Your task to perform on an android device: Open eBay Image 0: 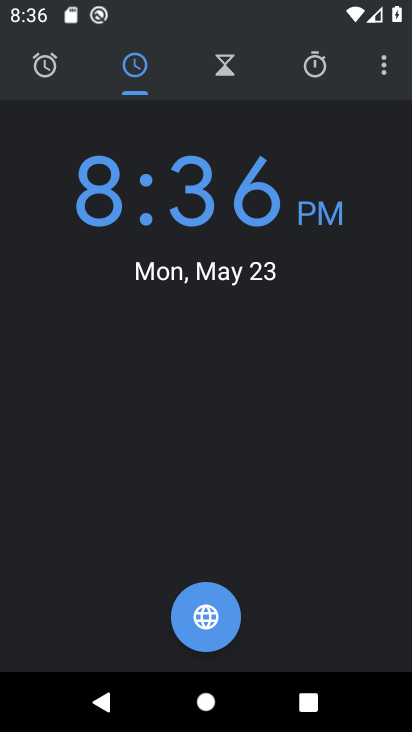
Step 0: press back button
Your task to perform on an android device: Open eBay Image 1: 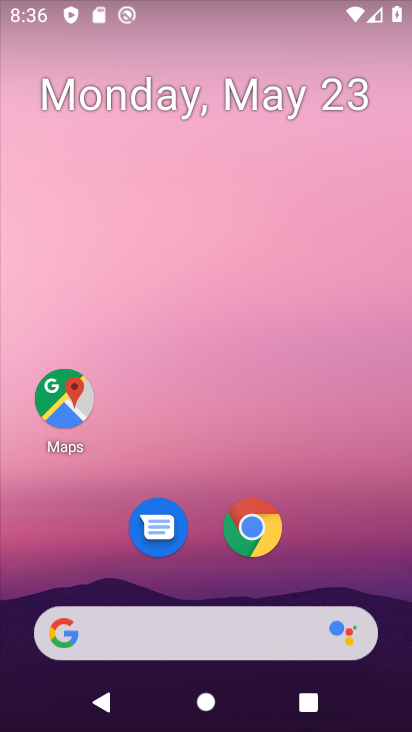
Step 1: click (248, 522)
Your task to perform on an android device: Open eBay Image 2: 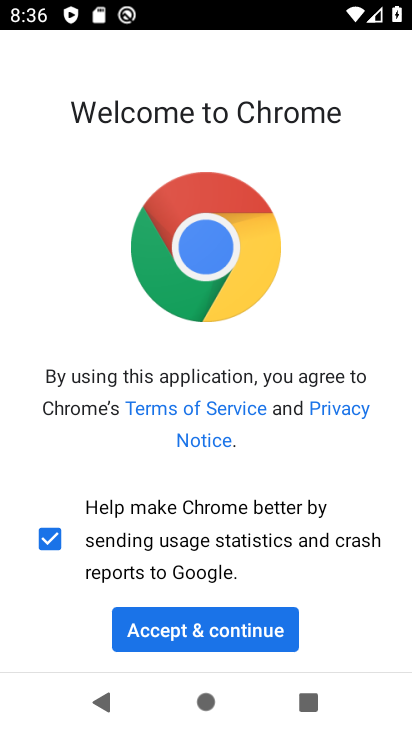
Step 2: click (207, 629)
Your task to perform on an android device: Open eBay Image 3: 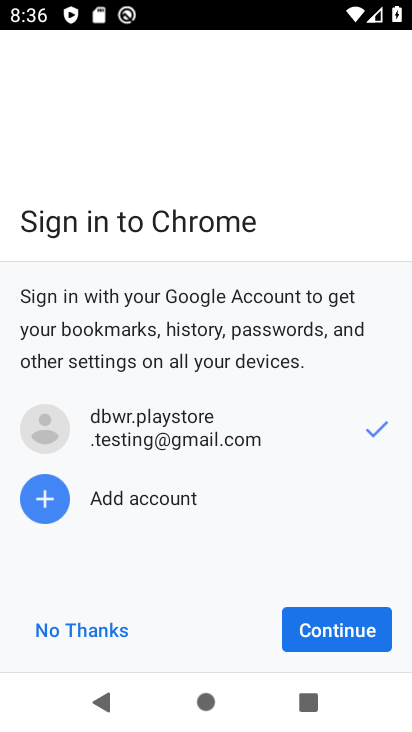
Step 3: click (369, 629)
Your task to perform on an android device: Open eBay Image 4: 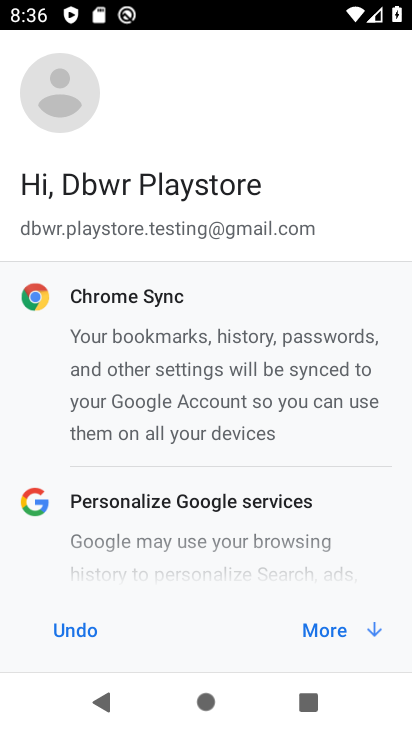
Step 4: click (305, 625)
Your task to perform on an android device: Open eBay Image 5: 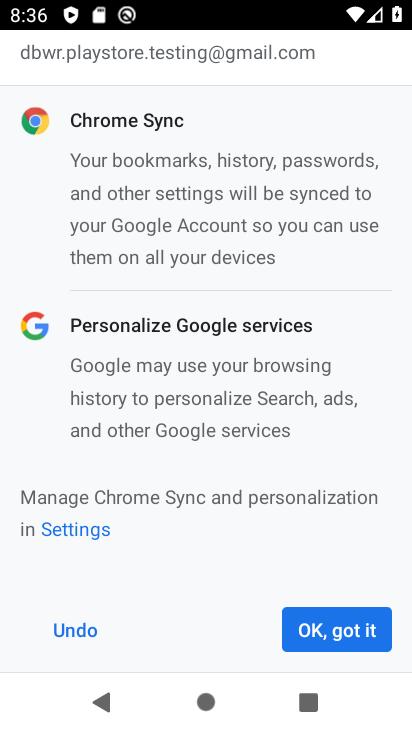
Step 5: click (342, 631)
Your task to perform on an android device: Open eBay Image 6: 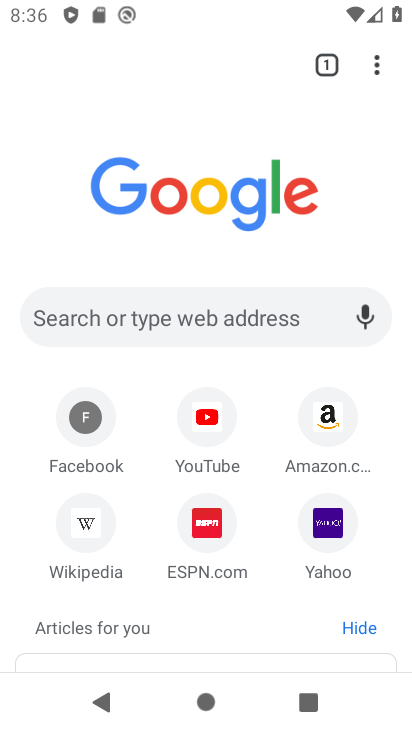
Step 6: click (205, 312)
Your task to perform on an android device: Open eBay Image 7: 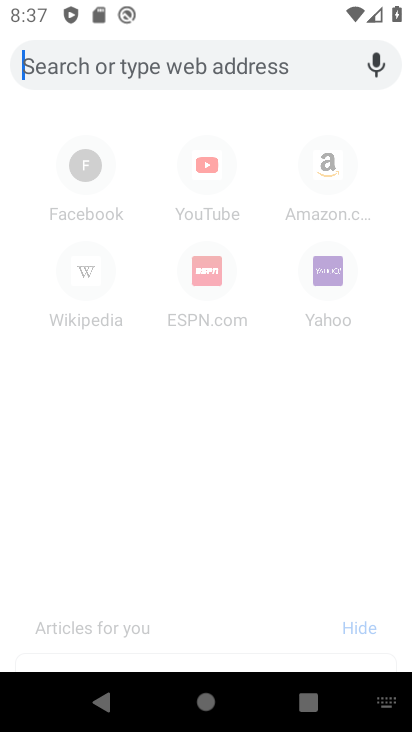
Step 7: type "eBay"
Your task to perform on an android device: Open eBay Image 8: 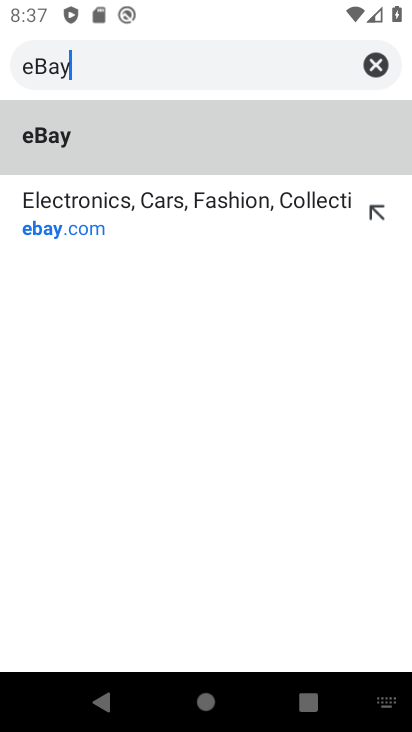
Step 8: type ""
Your task to perform on an android device: Open eBay Image 9: 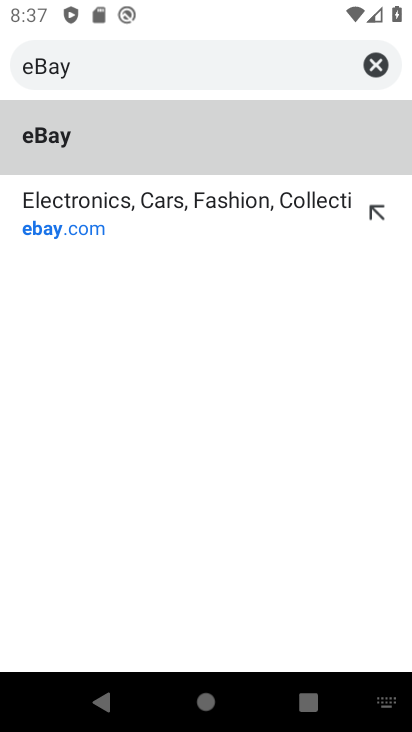
Step 9: click (116, 212)
Your task to perform on an android device: Open eBay Image 10: 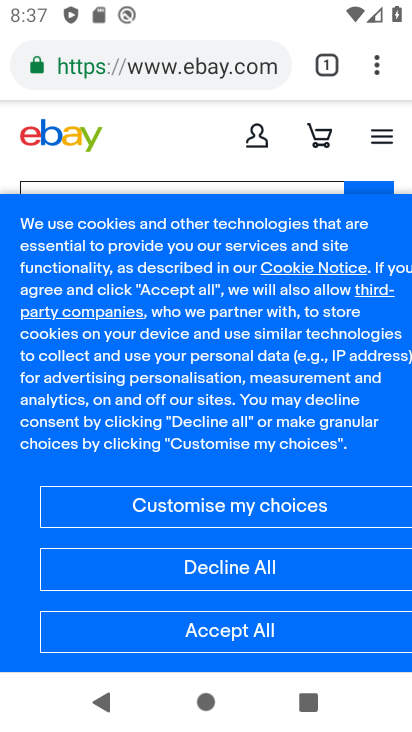
Step 10: task complete